Your task to perform on an android device: Open display settings Image 0: 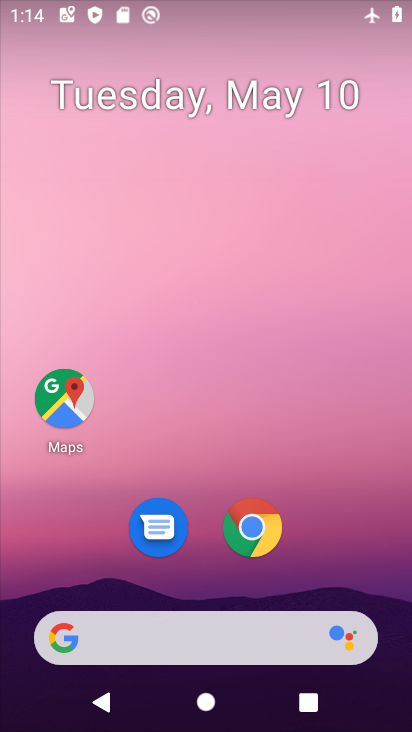
Step 0: drag from (207, 521) to (208, 292)
Your task to perform on an android device: Open display settings Image 1: 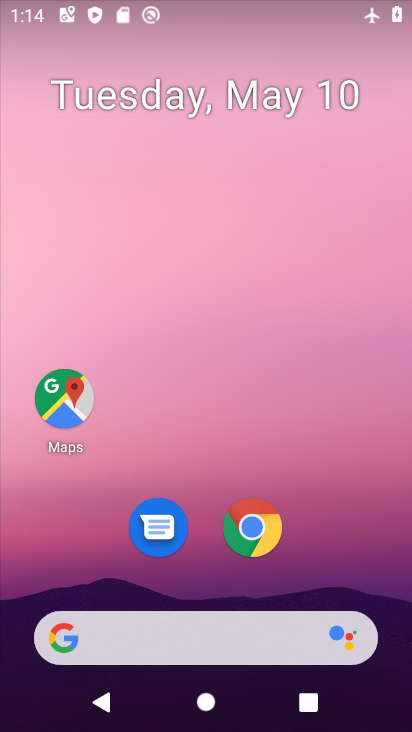
Step 1: drag from (198, 580) to (249, 198)
Your task to perform on an android device: Open display settings Image 2: 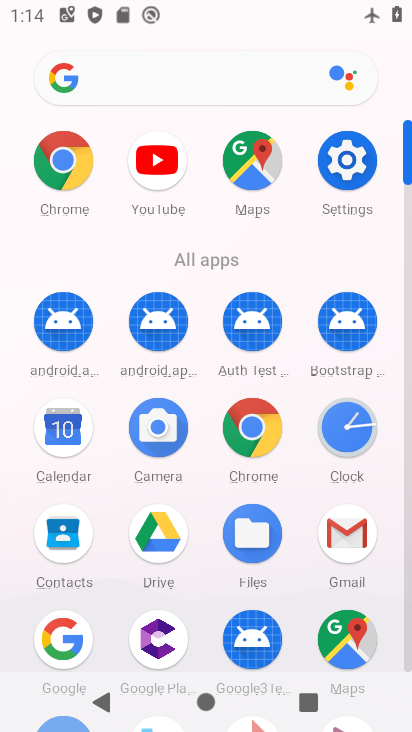
Step 2: click (341, 161)
Your task to perform on an android device: Open display settings Image 3: 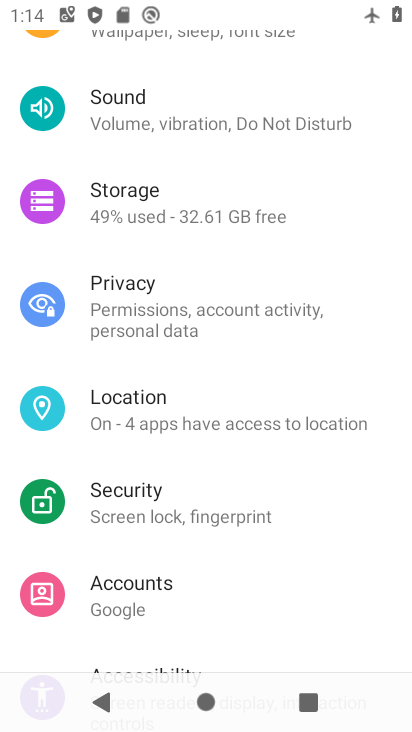
Step 3: drag from (180, 172) to (167, 458)
Your task to perform on an android device: Open display settings Image 4: 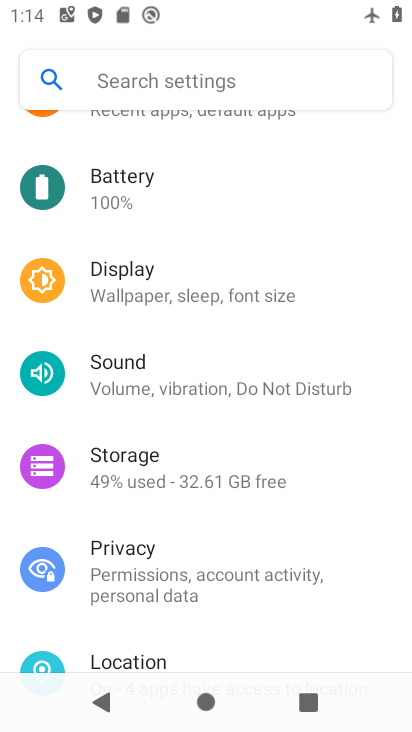
Step 4: click (128, 277)
Your task to perform on an android device: Open display settings Image 5: 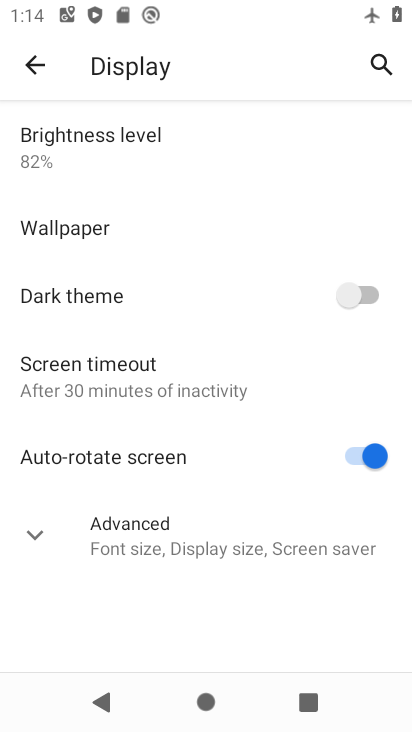
Step 5: task complete